Your task to perform on an android device: check out phone information Image 0: 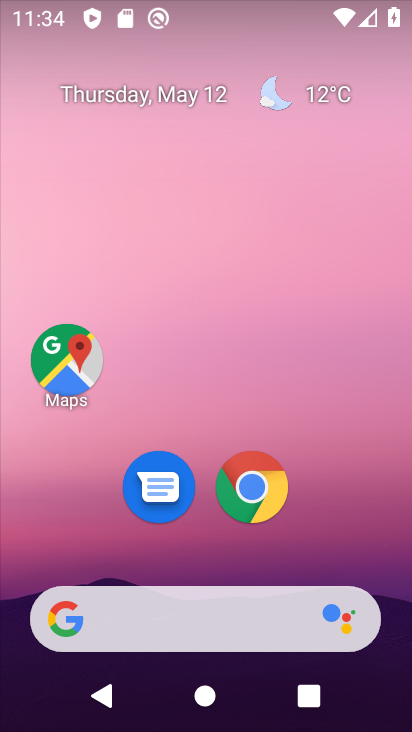
Step 0: drag from (171, 538) to (271, 37)
Your task to perform on an android device: check out phone information Image 1: 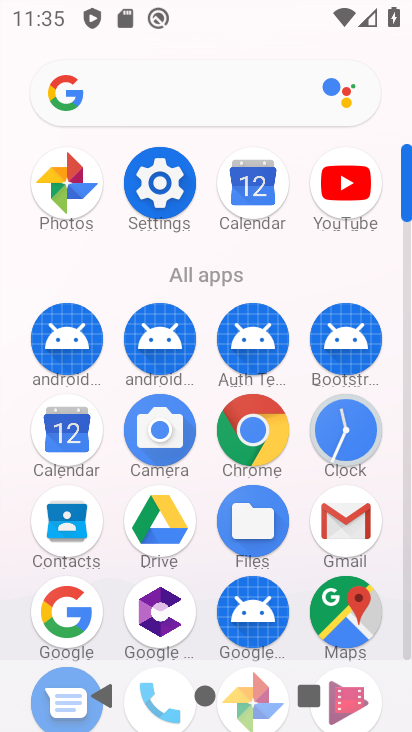
Step 1: click (160, 174)
Your task to perform on an android device: check out phone information Image 2: 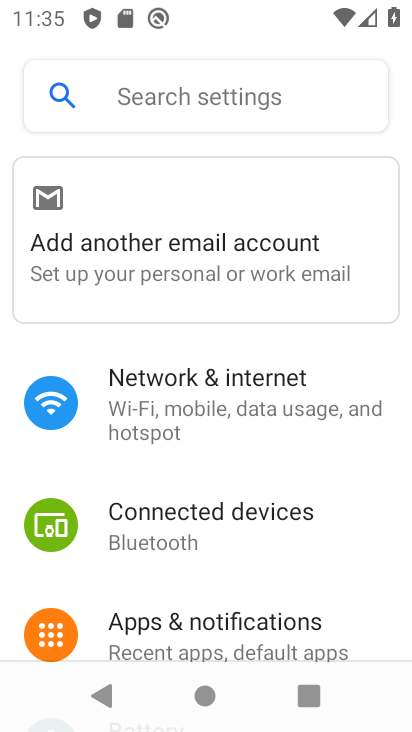
Step 2: drag from (182, 646) to (276, 218)
Your task to perform on an android device: check out phone information Image 3: 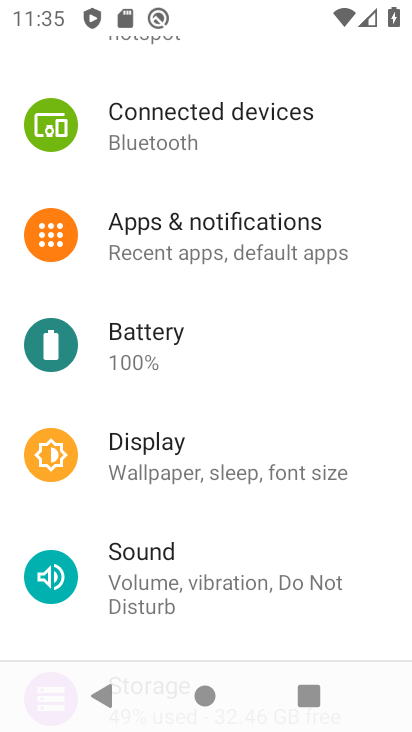
Step 3: drag from (233, 586) to (317, 89)
Your task to perform on an android device: check out phone information Image 4: 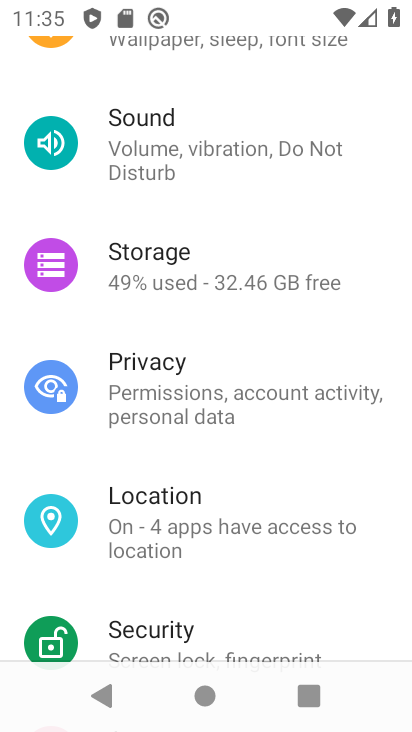
Step 4: drag from (182, 626) to (280, 84)
Your task to perform on an android device: check out phone information Image 5: 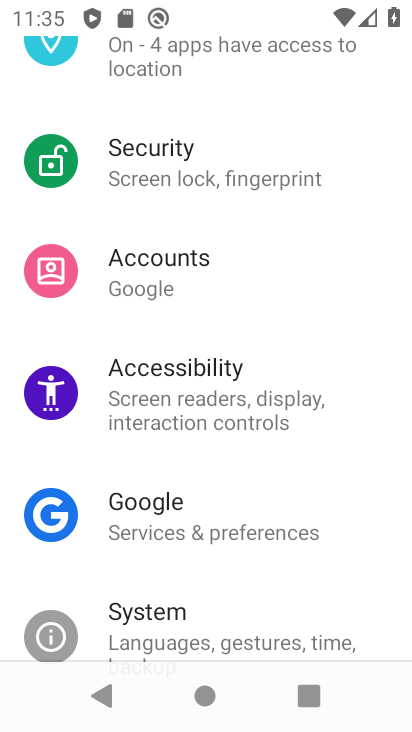
Step 5: drag from (208, 612) to (294, 64)
Your task to perform on an android device: check out phone information Image 6: 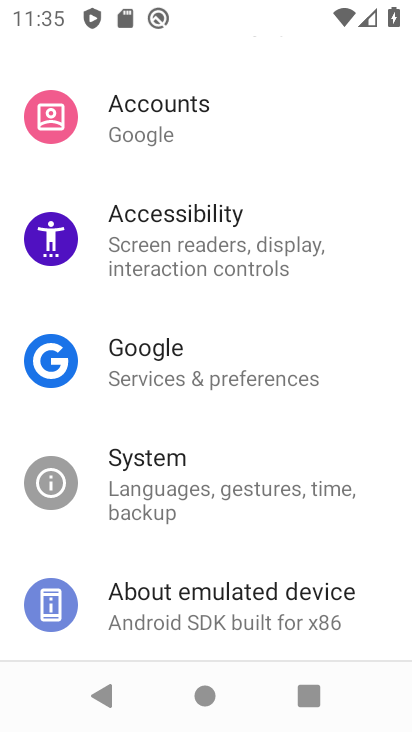
Step 6: drag from (198, 629) to (288, 58)
Your task to perform on an android device: check out phone information Image 7: 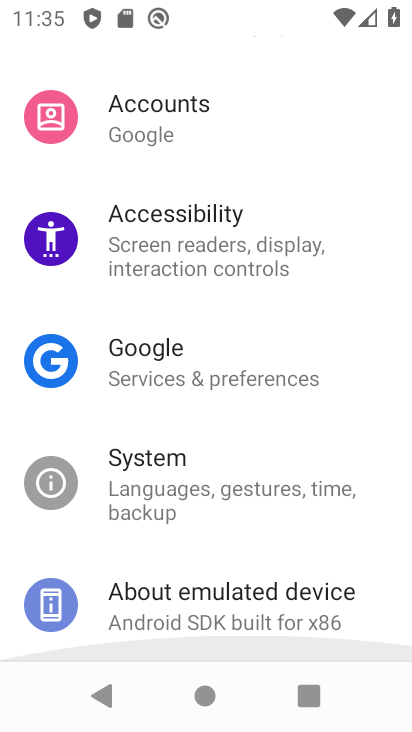
Step 7: click (190, 565)
Your task to perform on an android device: check out phone information Image 8: 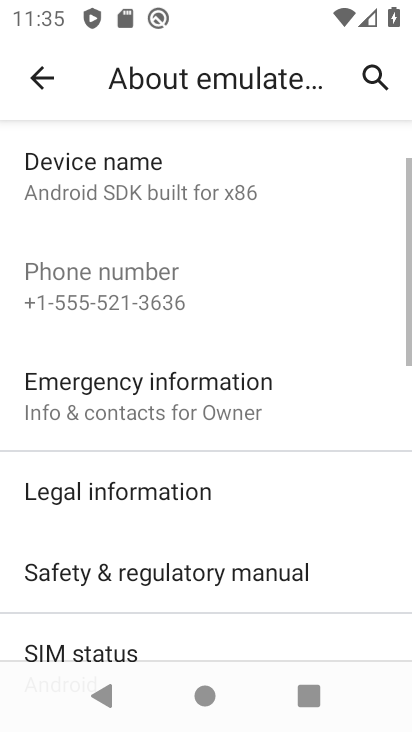
Step 8: task complete